Your task to perform on an android device: show emergency info Image 0: 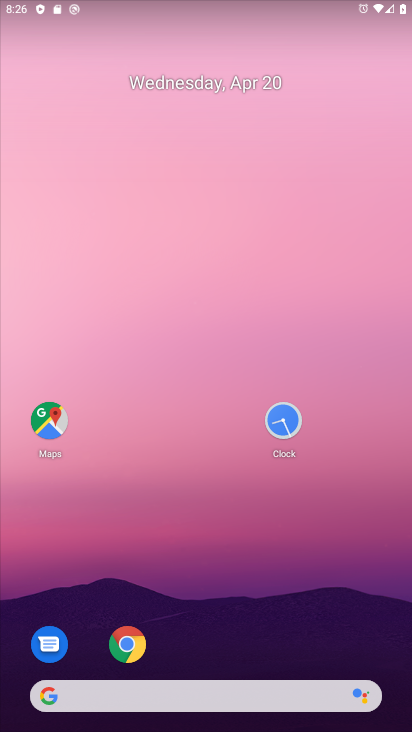
Step 0: drag from (209, 662) to (278, 79)
Your task to perform on an android device: show emergency info Image 1: 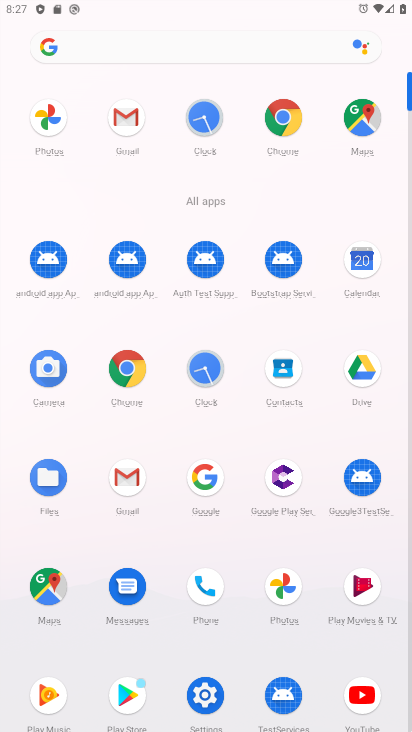
Step 1: drag from (246, 581) to (292, 167)
Your task to perform on an android device: show emergency info Image 2: 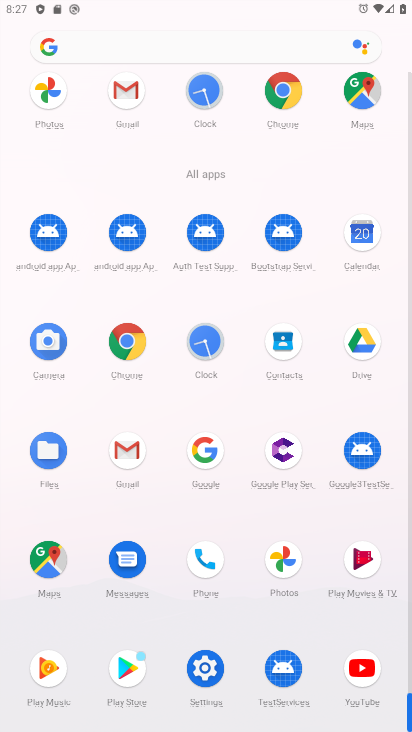
Step 2: click (207, 676)
Your task to perform on an android device: show emergency info Image 3: 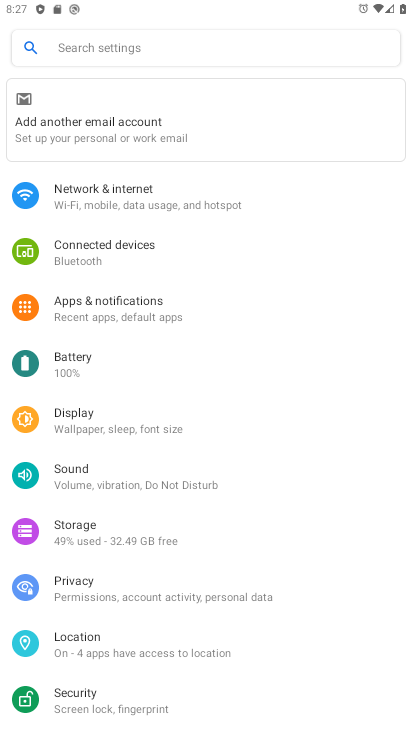
Step 3: drag from (133, 533) to (145, 114)
Your task to perform on an android device: show emergency info Image 4: 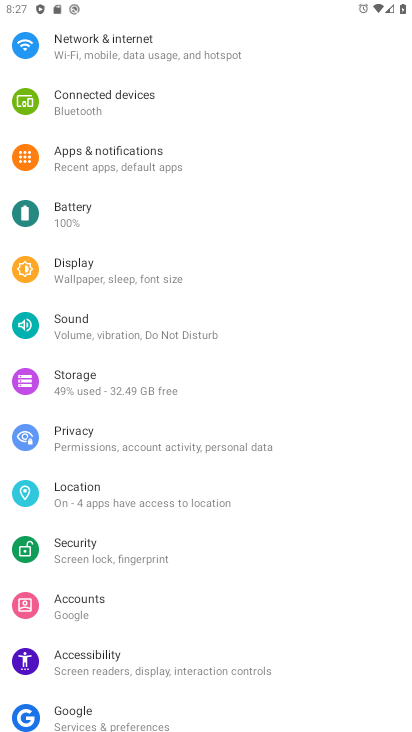
Step 4: drag from (142, 693) to (248, 308)
Your task to perform on an android device: show emergency info Image 5: 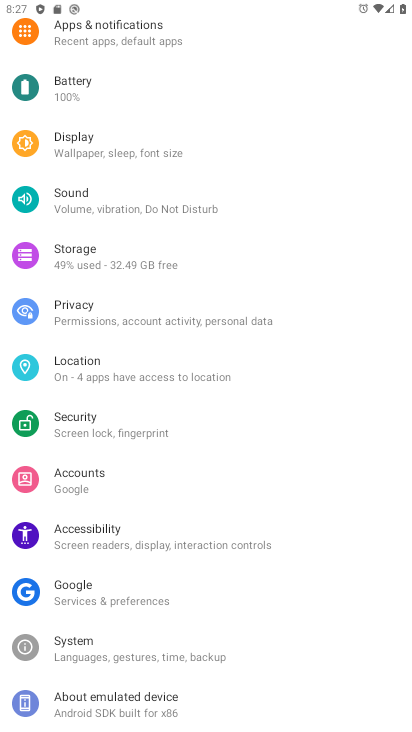
Step 5: click (160, 711)
Your task to perform on an android device: show emergency info Image 6: 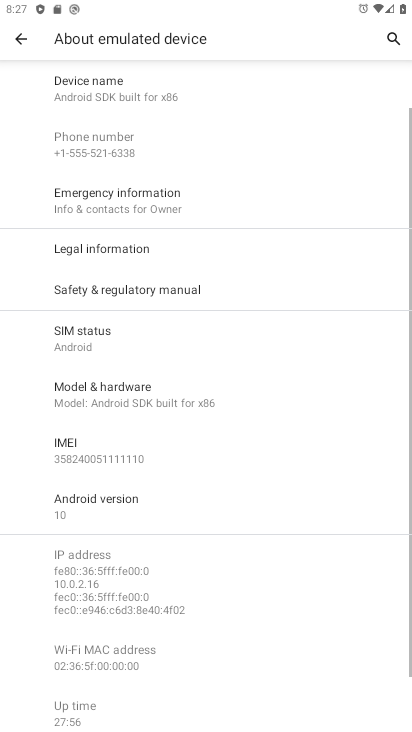
Step 6: click (94, 211)
Your task to perform on an android device: show emergency info Image 7: 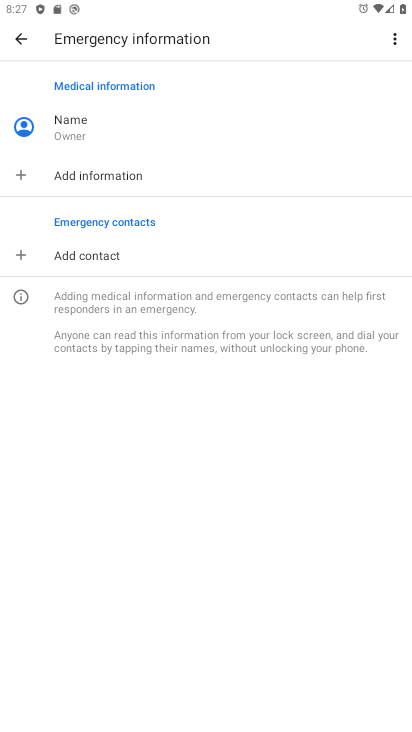
Step 7: task complete